Your task to perform on an android device: Open Google Maps and go to "Timeline" Image 0: 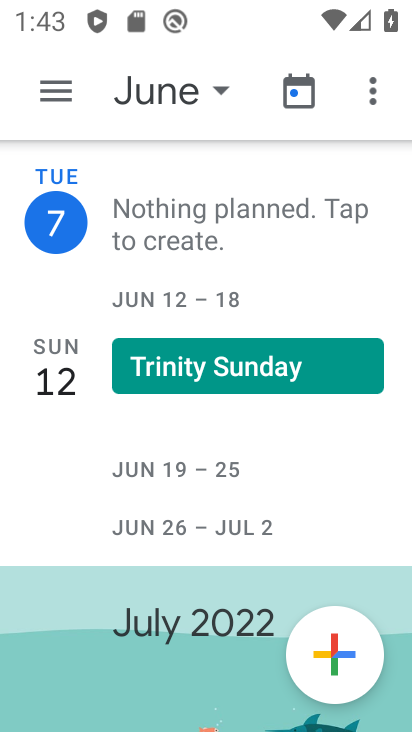
Step 0: press home button
Your task to perform on an android device: Open Google Maps and go to "Timeline" Image 1: 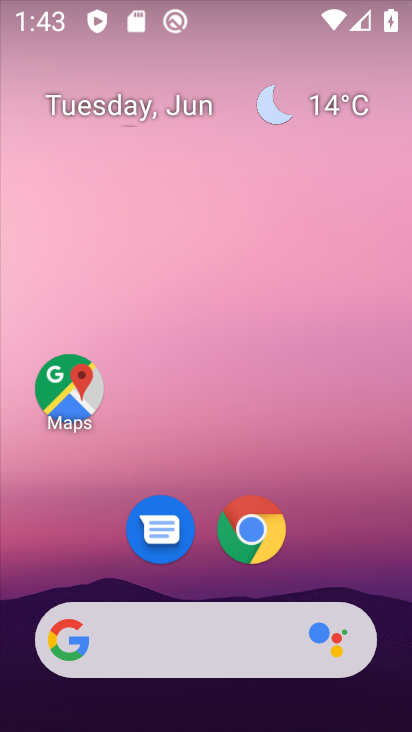
Step 1: click (90, 405)
Your task to perform on an android device: Open Google Maps and go to "Timeline" Image 2: 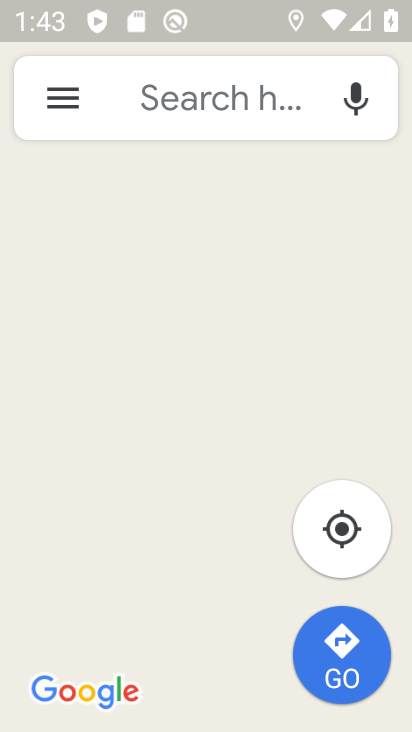
Step 2: click (85, 103)
Your task to perform on an android device: Open Google Maps and go to "Timeline" Image 3: 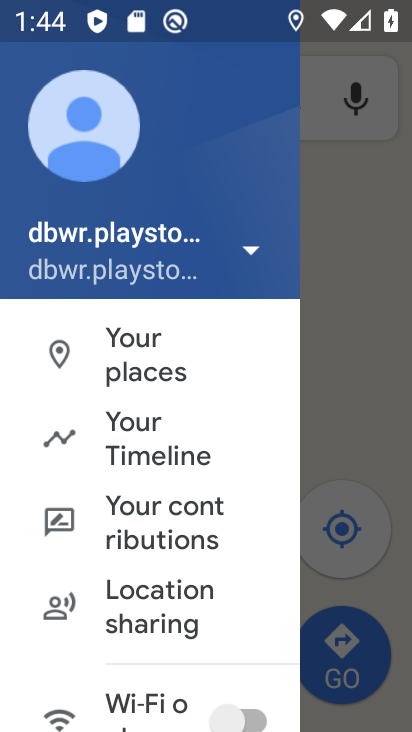
Step 3: click (182, 474)
Your task to perform on an android device: Open Google Maps and go to "Timeline" Image 4: 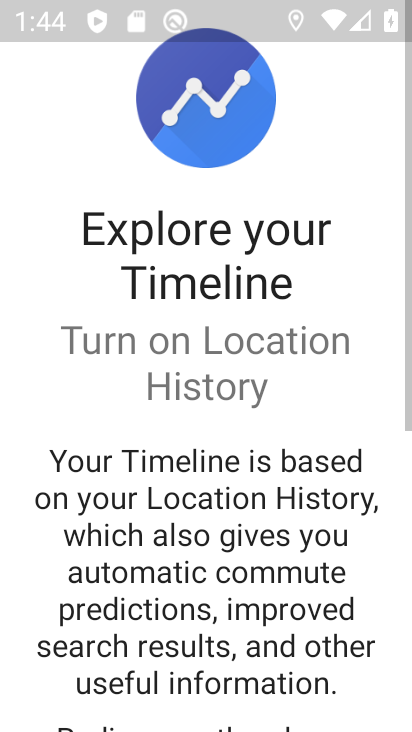
Step 4: drag from (209, 568) to (312, 250)
Your task to perform on an android device: Open Google Maps and go to "Timeline" Image 5: 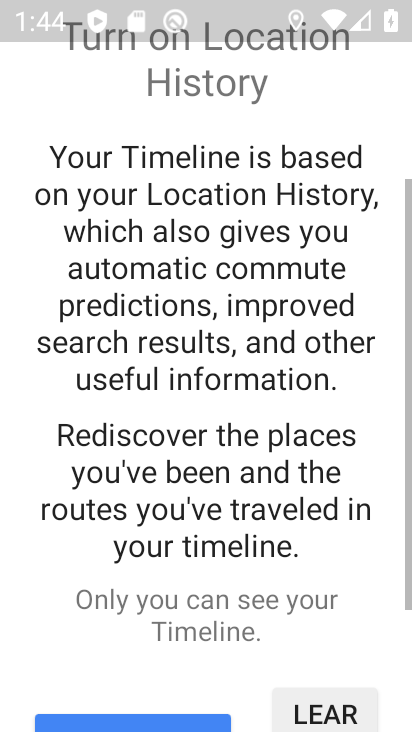
Step 5: drag from (243, 562) to (337, 227)
Your task to perform on an android device: Open Google Maps and go to "Timeline" Image 6: 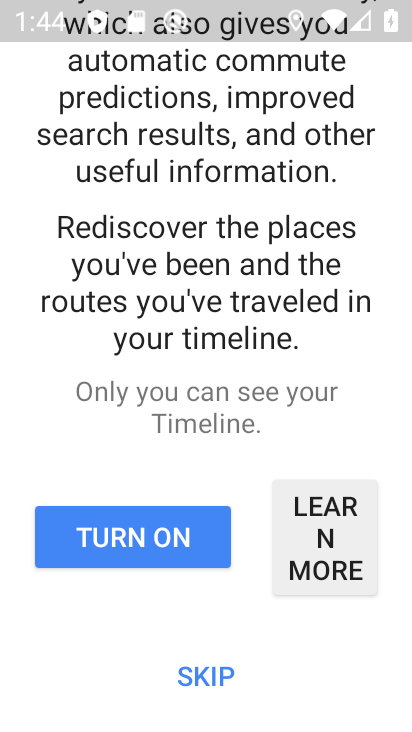
Step 6: click (231, 676)
Your task to perform on an android device: Open Google Maps and go to "Timeline" Image 7: 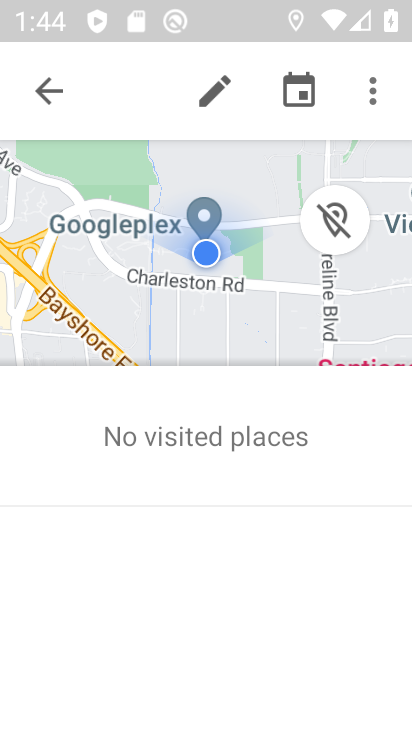
Step 7: task complete